Your task to perform on an android device: Open Maps and search for coffee Image 0: 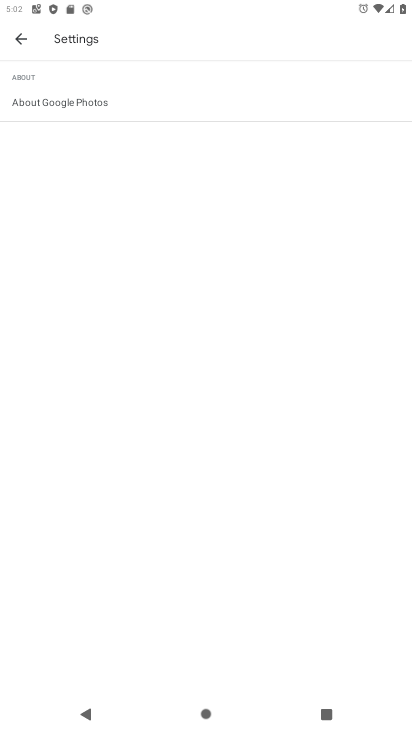
Step 0: press home button
Your task to perform on an android device: Open Maps and search for coffee Image 1: 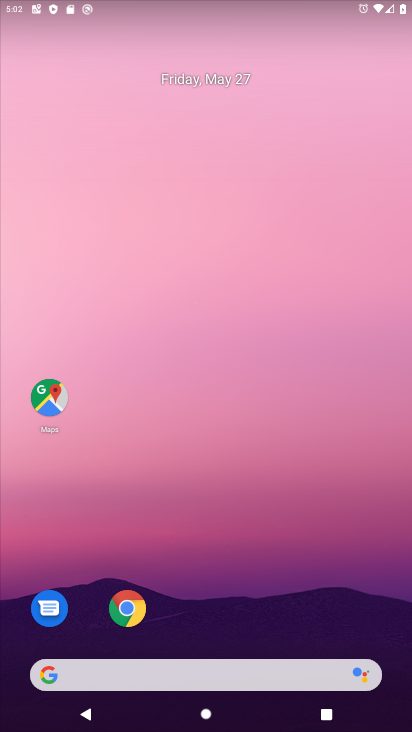
Step 1: click (47, 388)
Your task to perform on an android device: Open Maps and search for coffee Image 2: 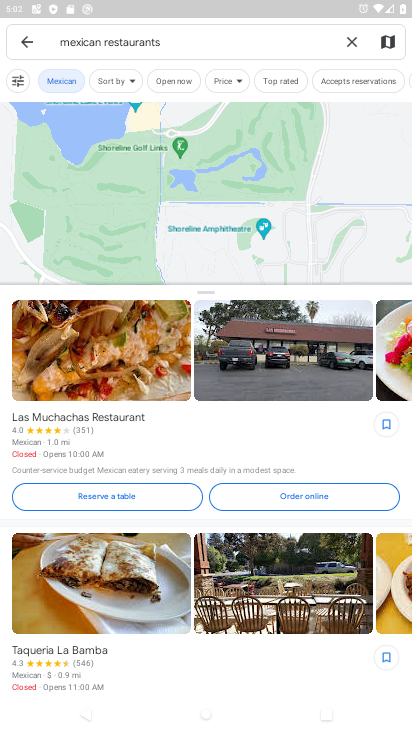
Step 2: click (355, 37)
Your task to perform on an android device: Open Maps and search for coffee Image 3: 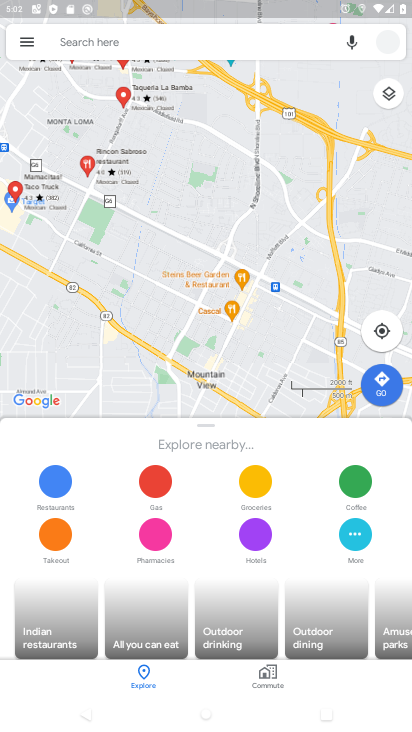
Step 3: click (149, 46)
Your task to perform on an android device: Open Maps and search for coffee Image 4: 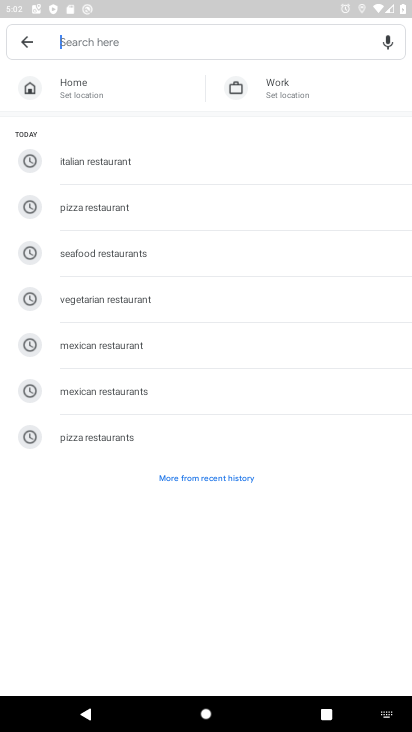
Step 4: type "coffee "
Your task to perform on an android device: Open Maps and search for coffee Image 5: 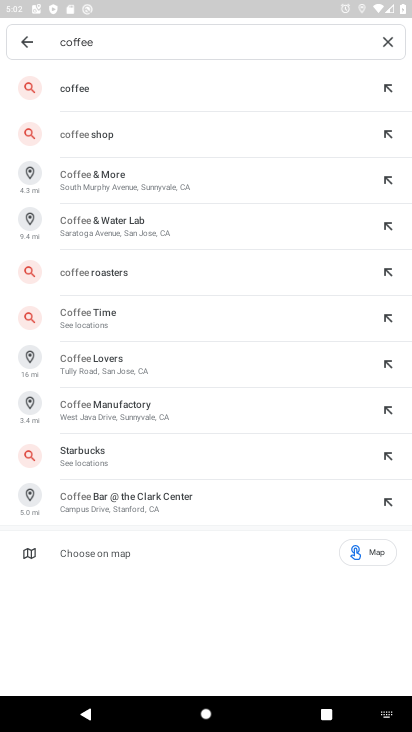
Step 5: click (78, 141)
Your task to perform on an android device: Open Maps and search for coffee Image 6: 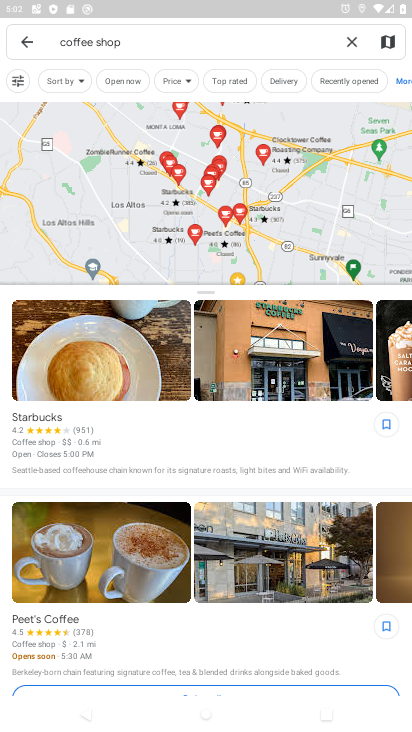
Step 6: task complete